Your task to perform on an android device: open a bookmark in the chrome app Image 0: 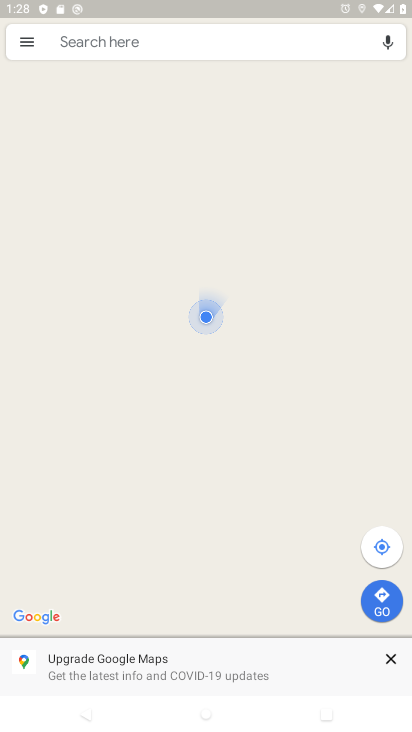
Step 0: press home button
Your task to perform on an android device: open a bookmark in the chrome app Image 1: 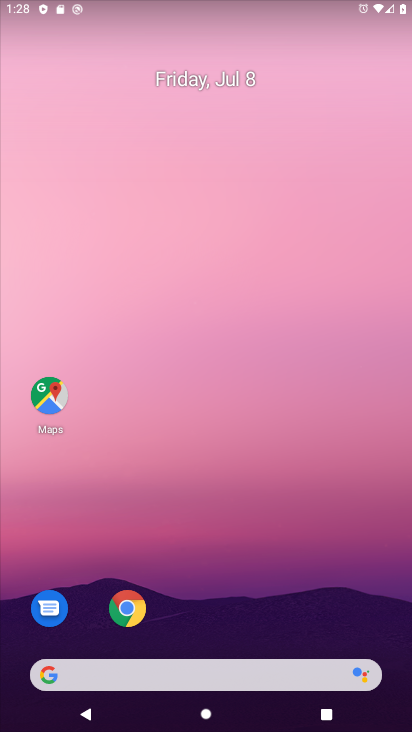
Step 1: click (135, 620)
Your task to perform on an android device: open a bookmark in the chrome app Image 2: 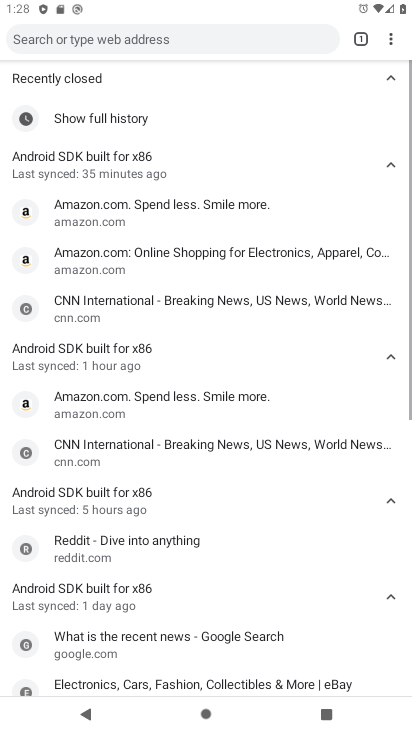
Step 2: click (396, 36)
Your task to perform on an android device: open a bookmark in the chrome app Image 3: 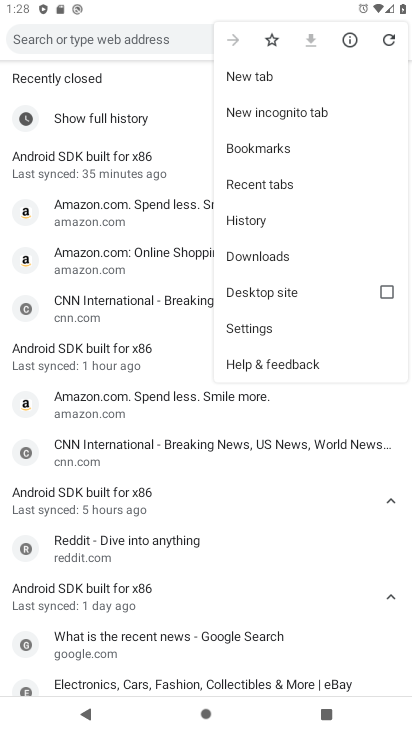
Step 3: click (279, 146)
Your task to perform on an android device: open a bookmark in the chrome app Image 4: 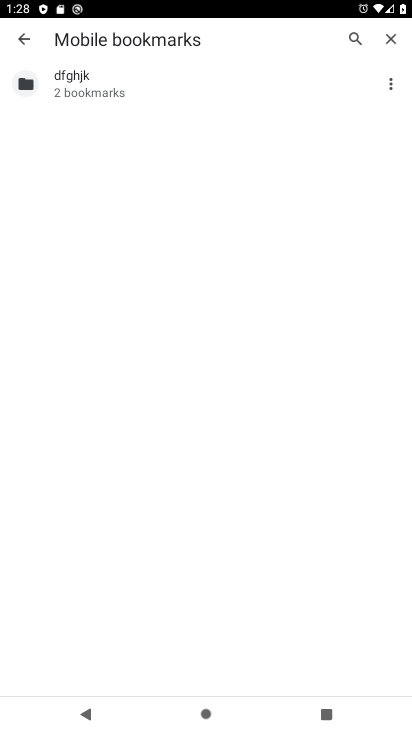
Step 4: click (124, 71)
Your task to perform on an android device: open a bookmark in the chrome app Image 5: 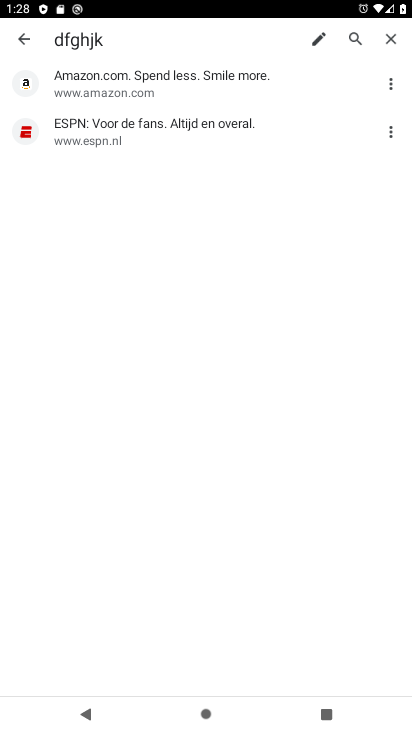
Step 5: click (180, 134)
Your task to perform on an android device: open a bookmark in the chrome app Image 6: 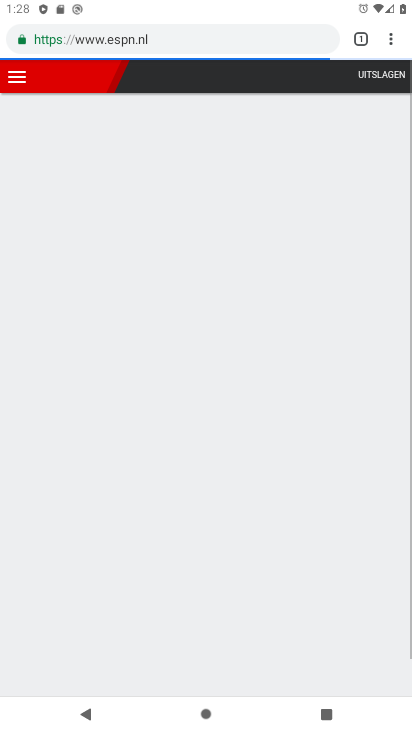
Step 6: task complete